Your task to perform on an android device: change the clock display to digital Image 0: 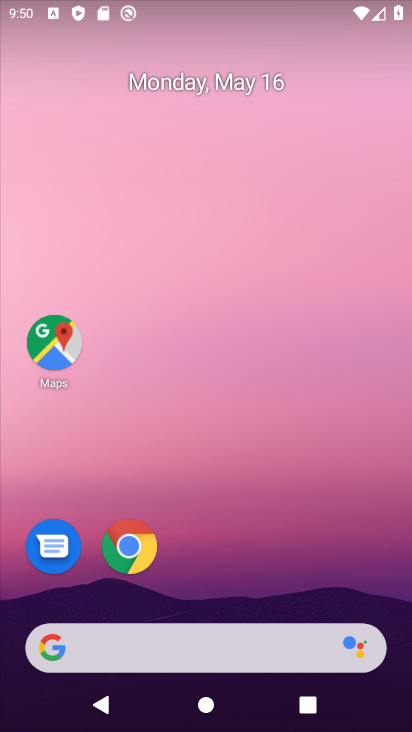
Step 0: drag from (188, 614) to (242, 81)
Your task to perform on an android device: change the clock display to digital Image 1: 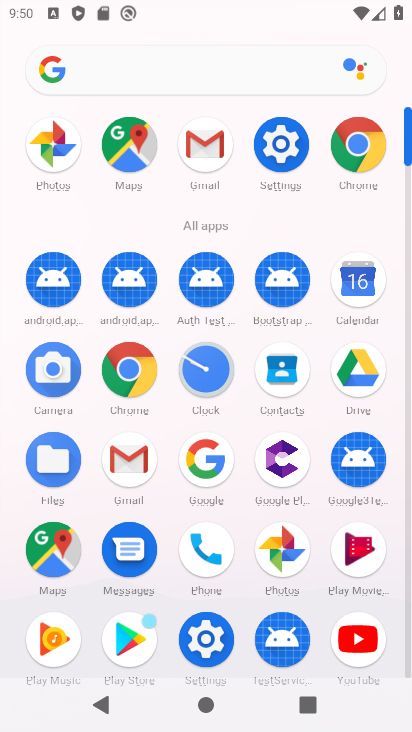
Step 1: drag from (173, 597) to (329, 7)
Your task to perform on an android device: change the clock display to digital Image 2: 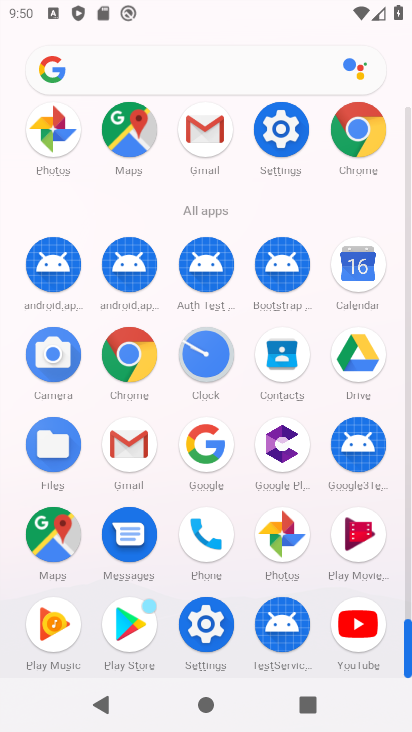
Step 2: click (200, 358)
Your task to perform on an android device: change the clock display to digital Image 3: 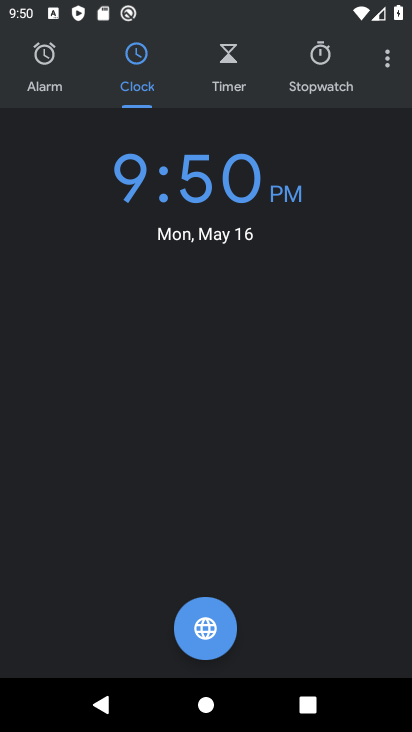
Step 3: click (398, 62)
Your task to perform on an android device: change the clock display to digital Image 4: 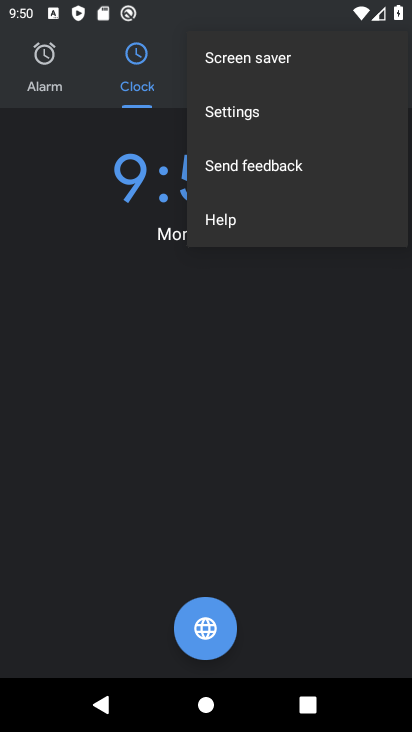
Step 4: click (290, 131)
Your task to perform on an android device: change the clock display to digital Image 5: 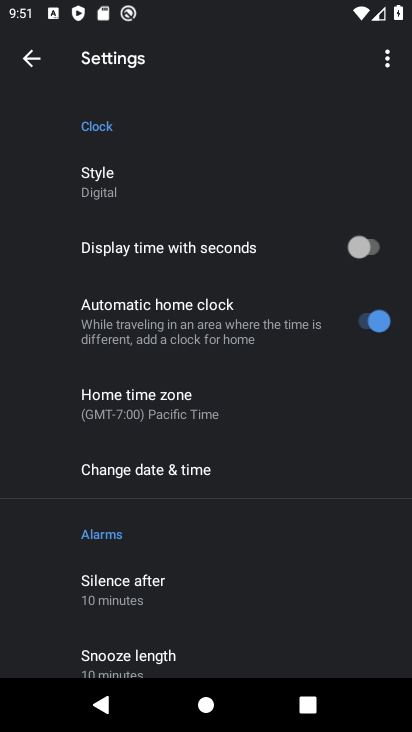
Step 5: task complete